Your task to perform on an android device: Search for Italian restaurants on Maps Image 0: 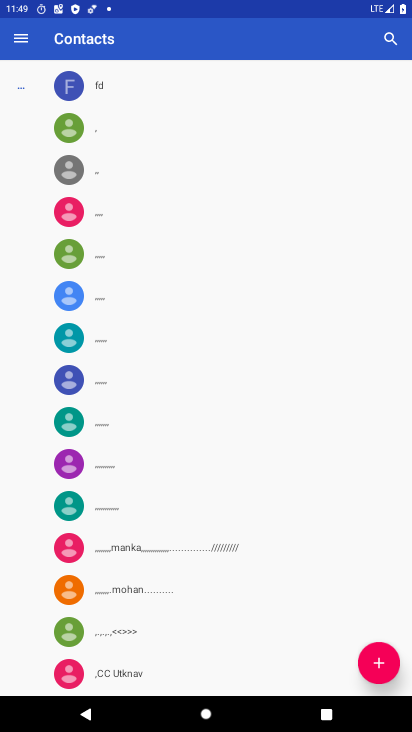
Step 0: press home button
Your task to perform on an android device: Search for Italian restaurants on Maps Image 1: 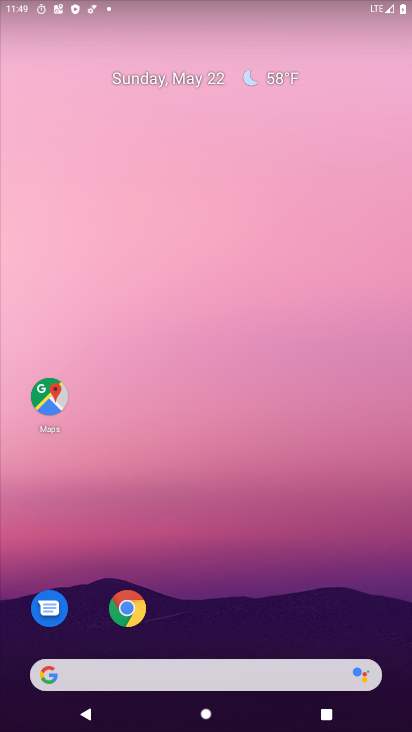
Step 1: click (57, 406)
Your task to perform on an android device: Search for Italian restaurants on Maps Image 2: 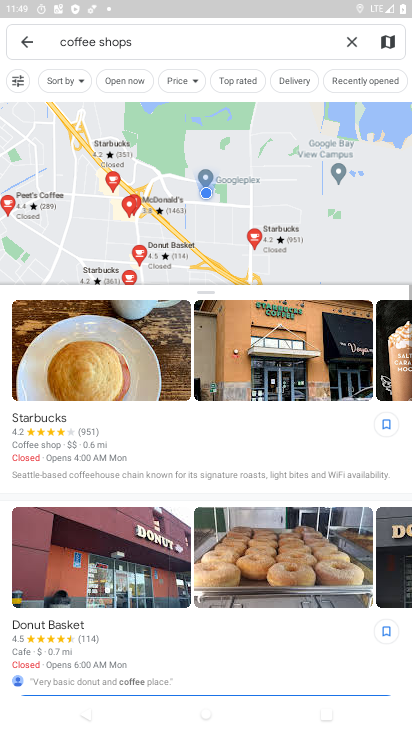
Step 2: click (346, 44)
Your task to perform on an android device: Search for Italian restaurants on Maps Image 3: 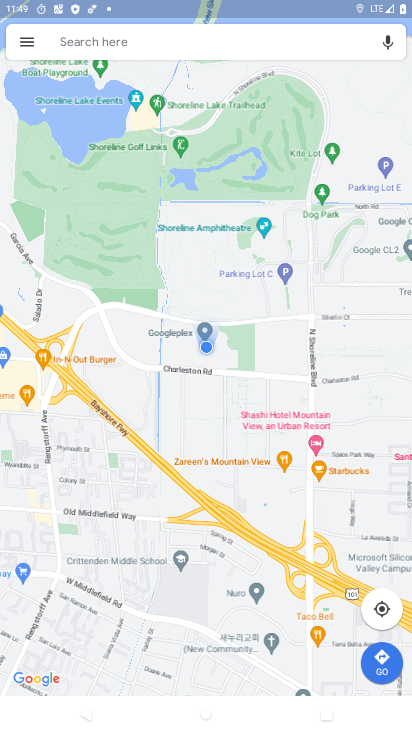
Step 3: click (150, 46)
Your task to perform on an android device: Search for Italian restaurants on Maps Image 4: 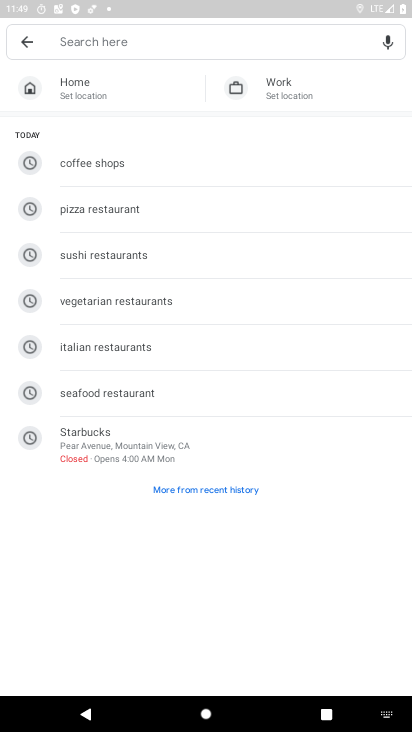
Step 4: click (127, 348)
Your task to perform on an android device: Search for Italian restaurants on Maps Image 5: 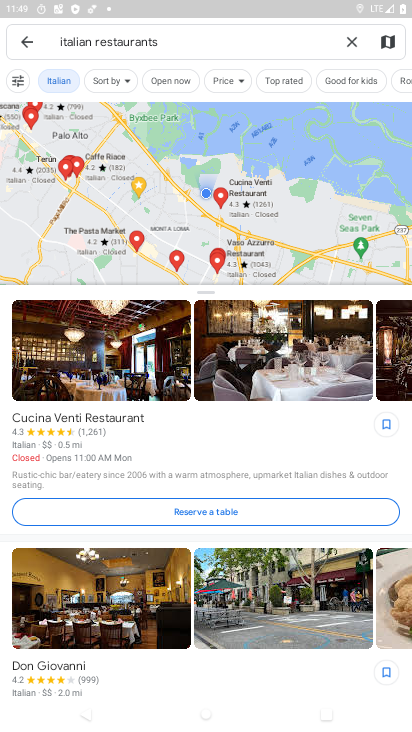
Step 5: task complete